Your task to perform on an android device: find which apps use the phone's location Image 0: 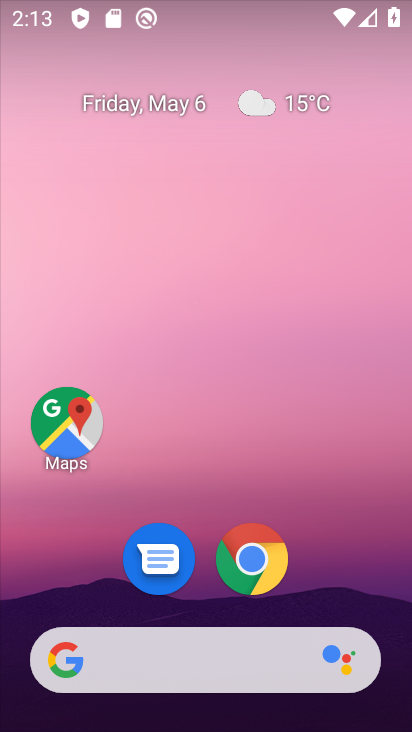
Step 0: drag from (202, 599) to (250, 137)
Your task to perform on an android device: find which apps use the phone's location Image 1: 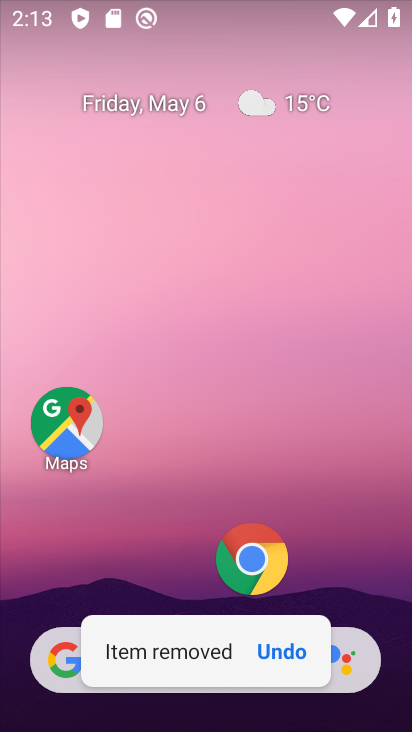
Step 1: drag from (317, 579) to (307, 7)
Your task to perform on an android device: find which apps use the phone's location Image 2: 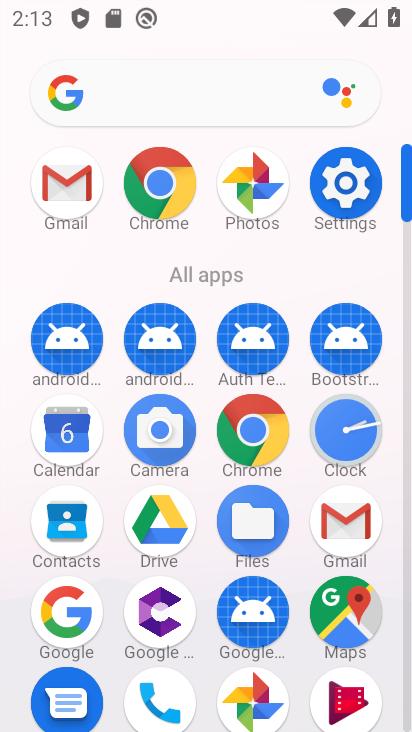
Step 2: click (340, 175)
Your task to perform on an android device: find which apps use the phone's location Image 3: 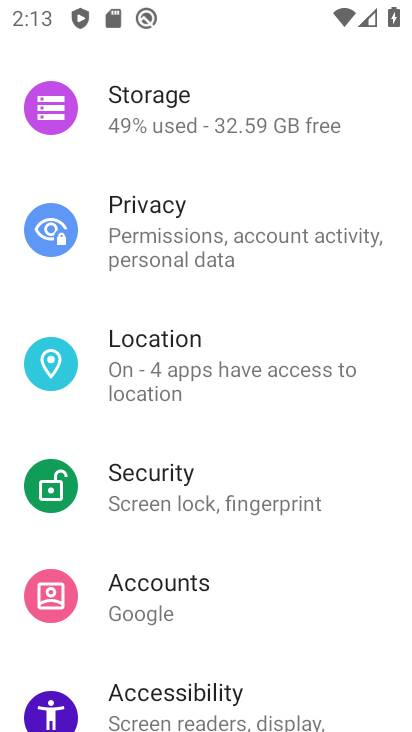
Step 3: click (223, 344)
Your task to perform on an android device: find which apps use the phone's location Image 4: 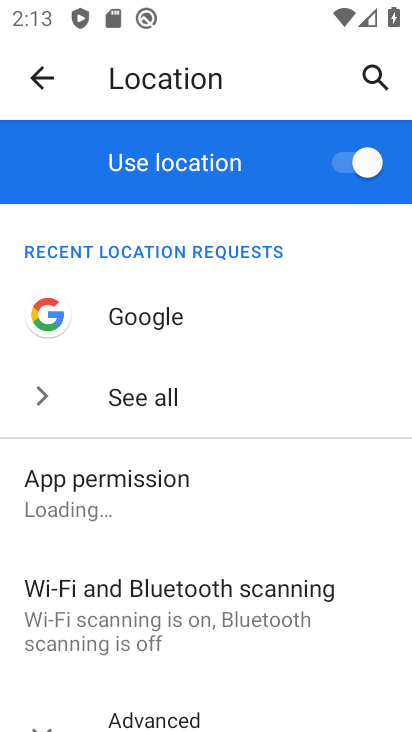
Step 4: click (146, 497)
Your task to perform on an android device: find which apps use the phone's location Image 5: 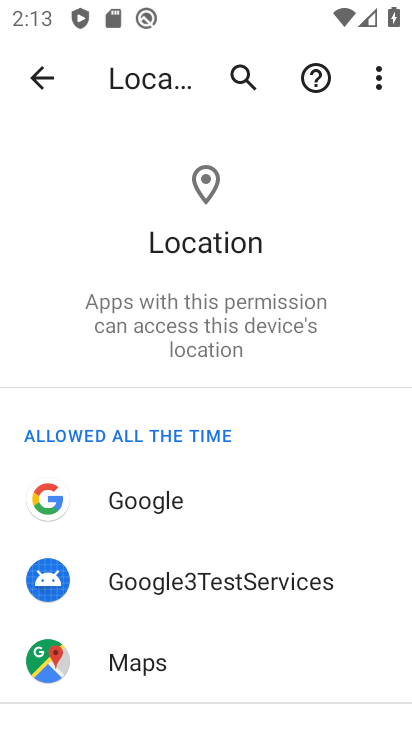
Step 5: task complete